Your task to perform on an android device: toggle airplane mode Image 0: 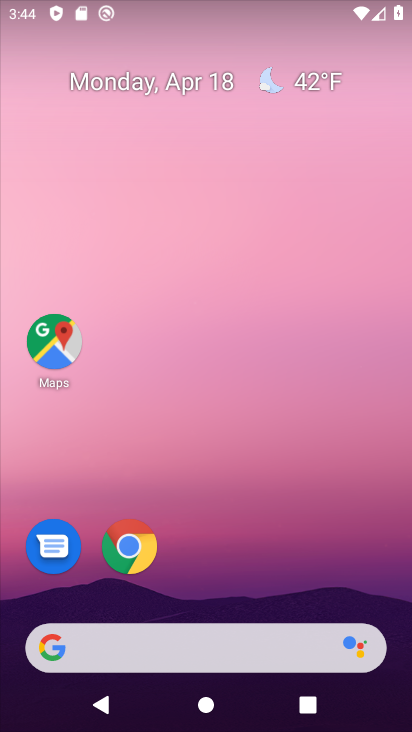
Step 0: drag from (312, 541) to (291, 44)
Your task to perform on an android device: toggle airplane mode Image 1: 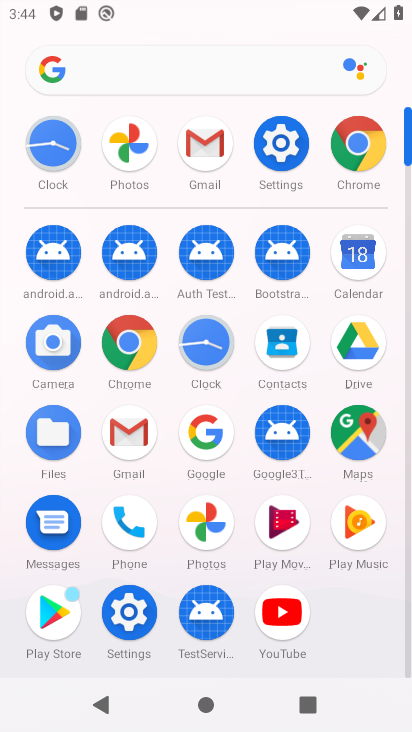
Step 1: click (140, 605)
Your task to perform on an android device: toggle airplane mode Image 2: 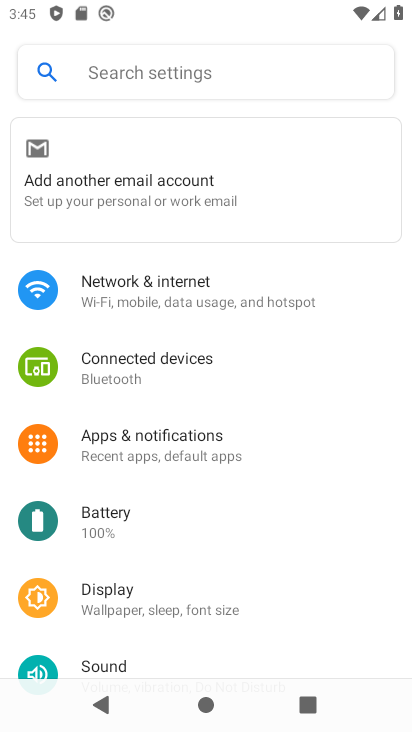
Step 2: click (169, 300)
Your task to perform on an android device: toggle airplane mode Image 3: 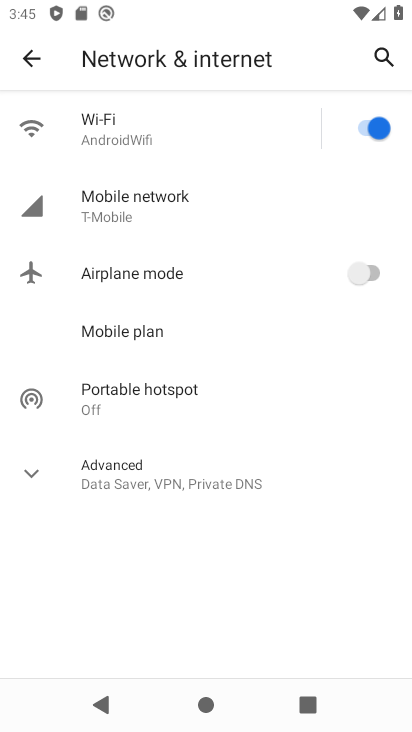
Step 3: click (367, 270)
Your task to perform on an android device: toggle airplane mode Image 4: 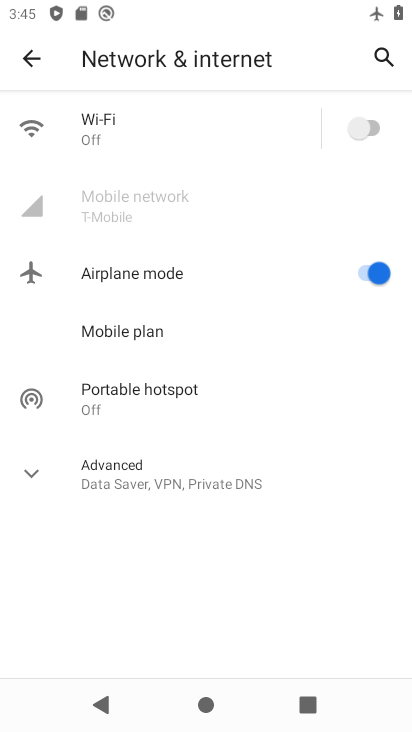
Step 4: task complete